Your task to perform on an android device: turn off notifications in google photos Image 0: 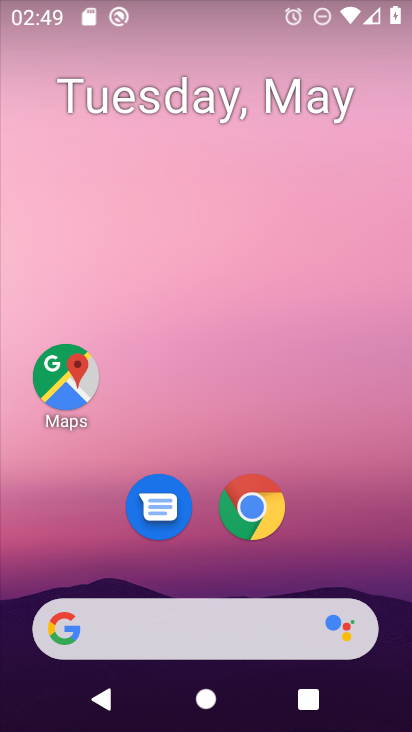
Step 0: drag from (213, 584) to (207, 198)
Your task to perform on an android device: turn off notifications in google photos Image 1: 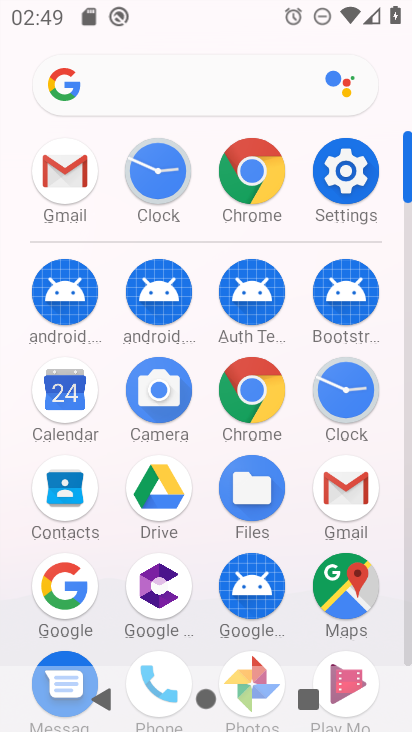
Step 1: drag from (207, 574) to (187, 268)
Your task to perform on an android device: turn off notifications in google photos Image 2: 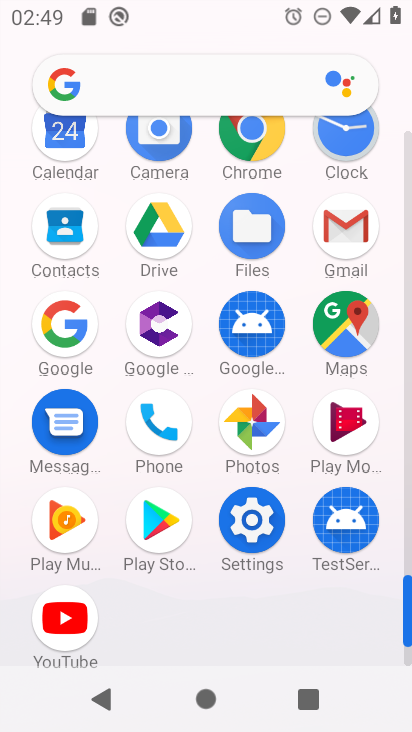
Step 2: click (257, 419)
Your task to perform on an android device: turn off notifications in google photos Image 3: 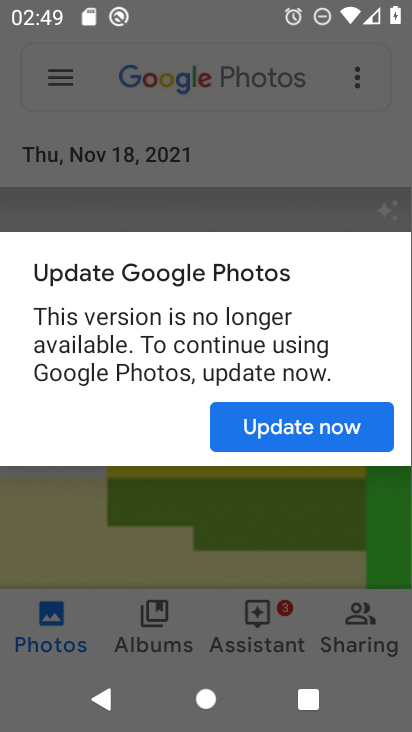
Step 3: click (256, 434)
Your task to perform on an android device: turn off notifications in google photos Image 4: 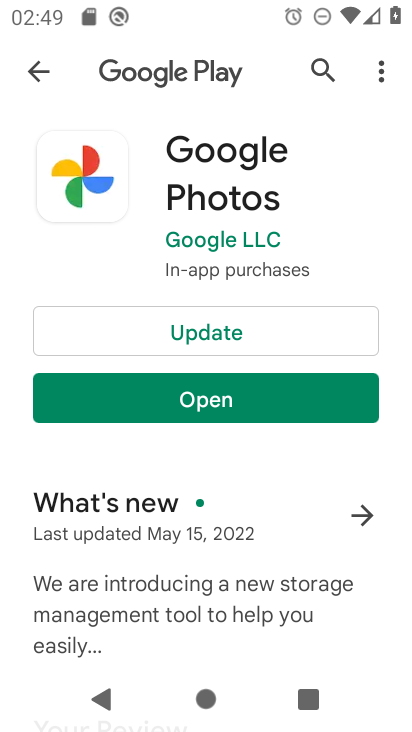
Step 4: click (153, 388)
Your task to perform on an android device: turn off notifications in google photos Image 5: 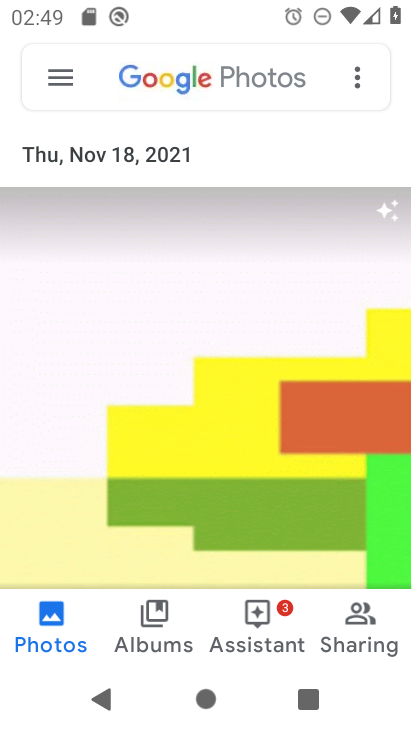
Step 5: click (53, 79)
Your task to perform on an android device: turn off notifications in google photos Image 6: 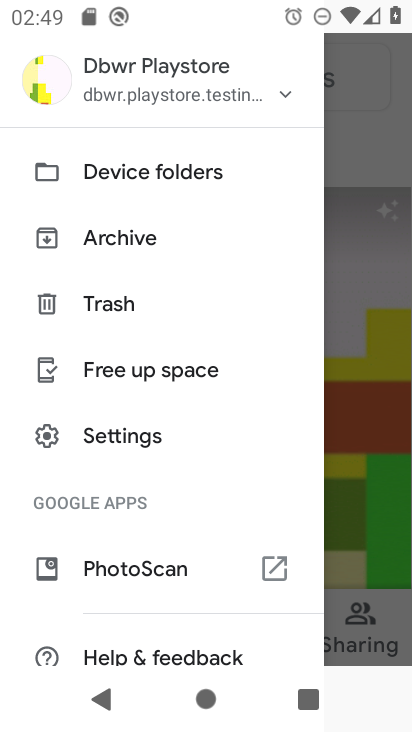
Step 6: click (128, 428)
Your task to perform on an android device: turn off notifications in google photos Image 7: 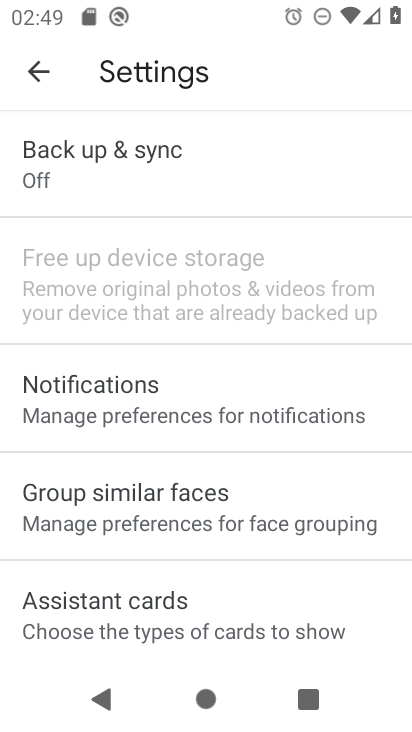
Step 7: drag from (215, 545) to (217, 359)
Your task to perform on an android device: turn off notifications in google photos Image 8: 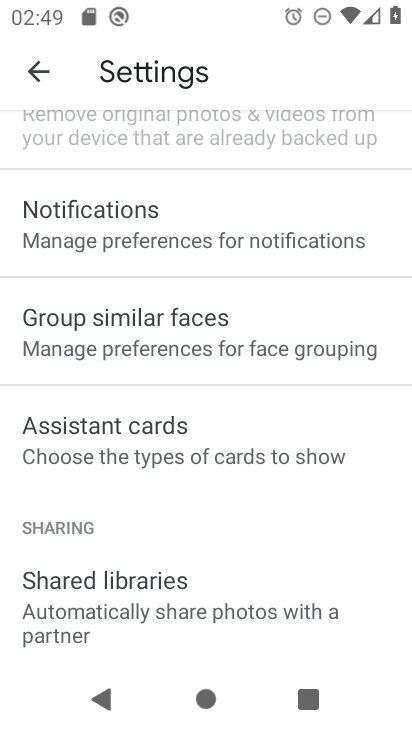
Step 8: drag from (225, 565) to (219, 436)
Your task to perform on an android device: turn off notifications in google photos Image 9: 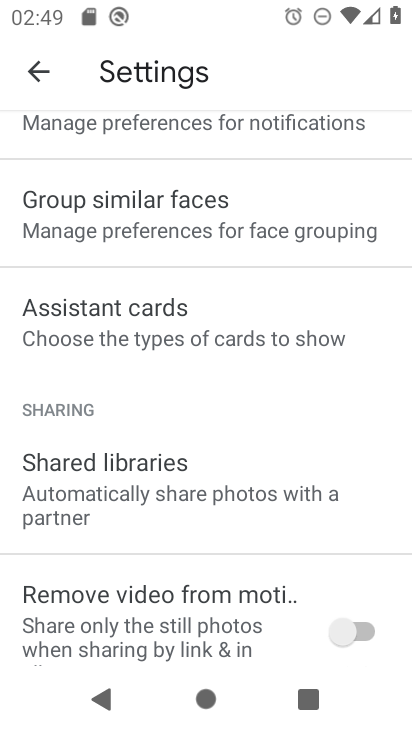
Step 9: drag from (178, 295) to (211, 449)
Your task to perform on an android device: turn off notifications in google photos Image 10: 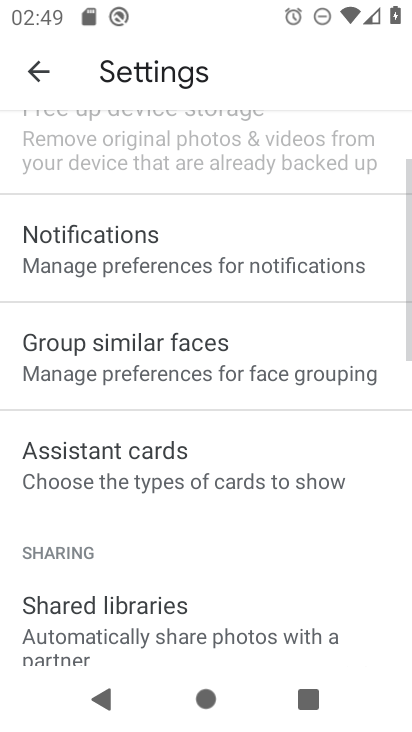
Step 10: click (138, 248)
Your task to perform on an android device: turn off notifications in google photos Image 11: 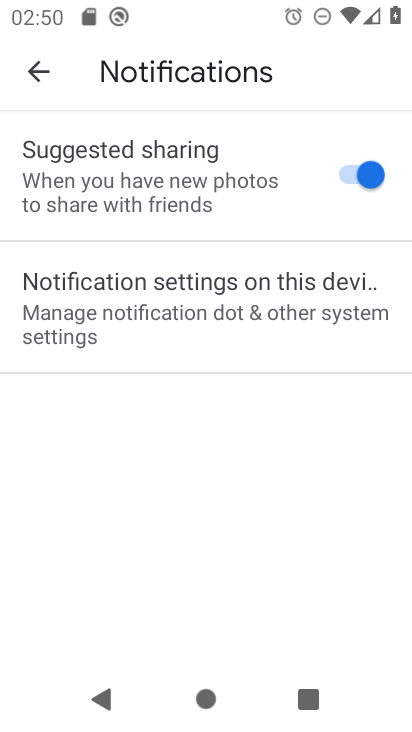
Step 11: click (241, 295)
Your task to perform on an android device: turn off notifications in google photos Image 12: 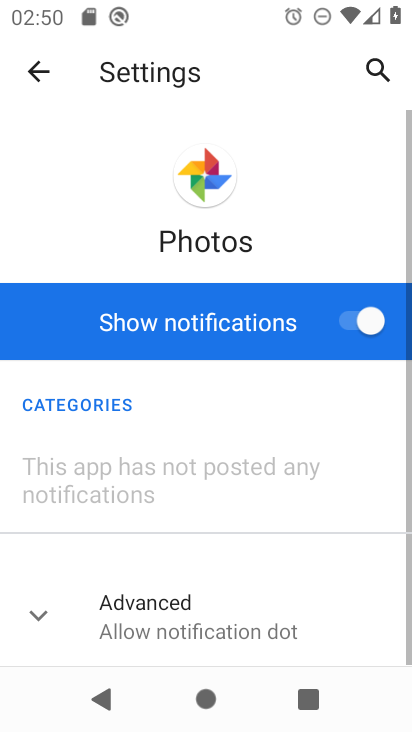
Step 12: click (354, 332)
Your task to perform on an android device: turn off notifications in google photos Image 13: 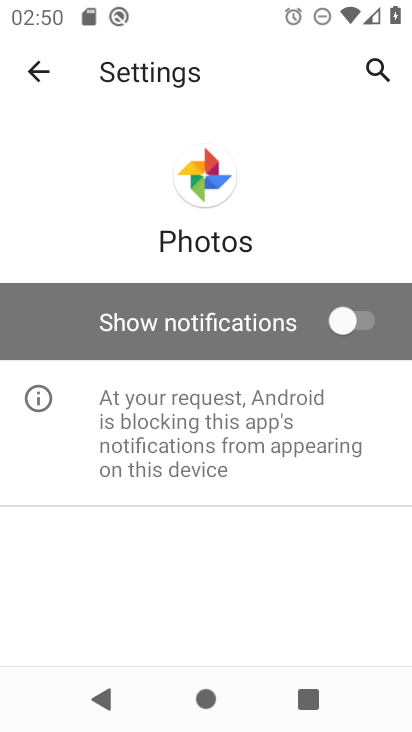
Step 13: task complete